Your task to perform on an android device: Open internet settings Image 0: 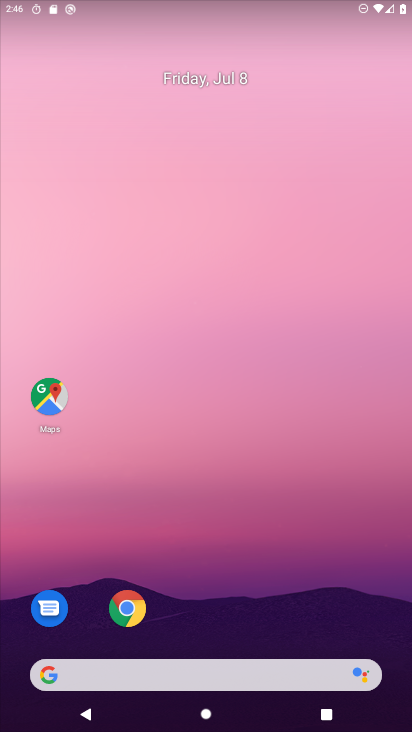
Step 0: drag from (236, 723) to (214, 117)
Your task to perform on an android device: Open internet settings Image 1: 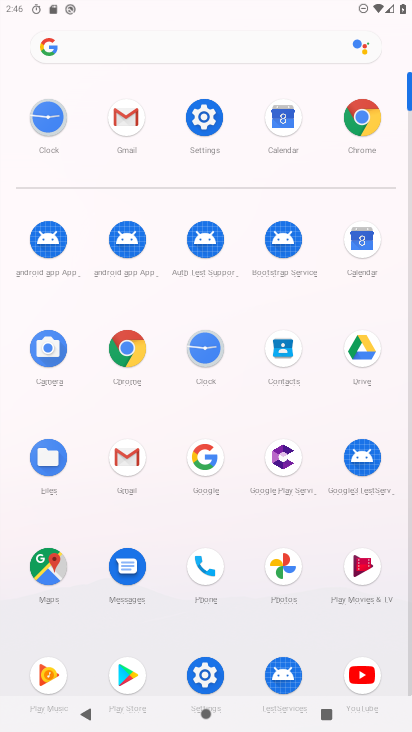
Step 1: click (198, 118)
Your task to perform on an android device: Open internet settings Image 2: 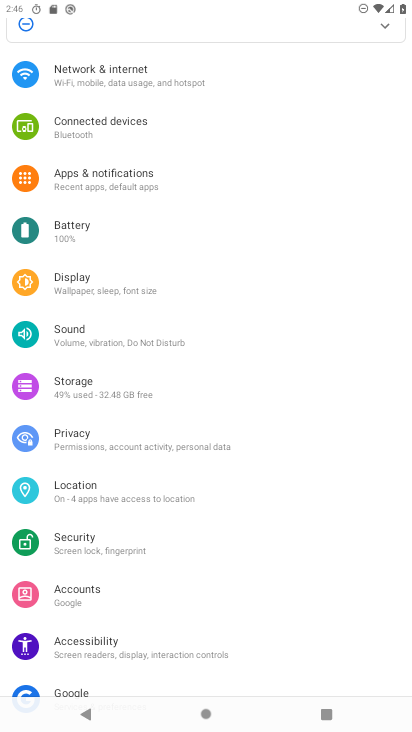
Step 2: click (110, 73)
Your task to perform on an android device: Open internet settings Image 3: 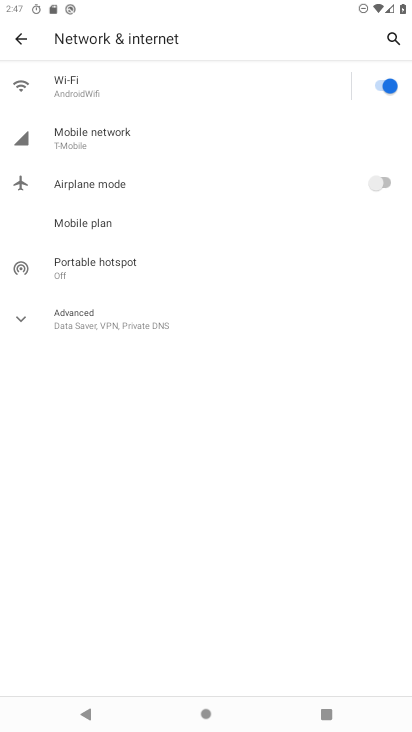
Step 3: task complete